Your task to perform on an android device: Open display settings Image 0: 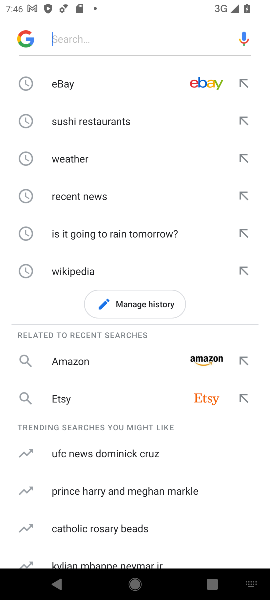
Step 0: press home button
Your task to perform on an android device: Open display settings Image 1: 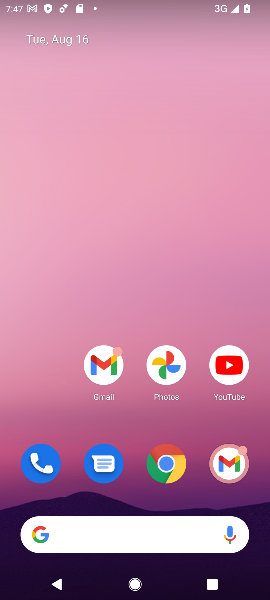
Step 1: drag from (105, 371) to (118, 44)
Your task to perform on an android device: Open display settings Image 2: 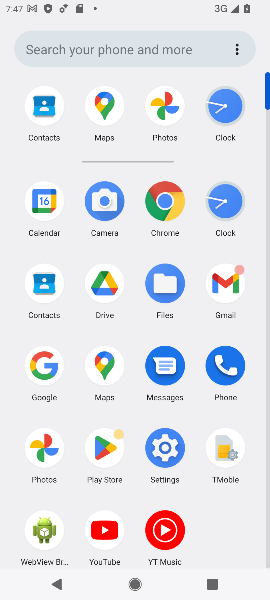
Step 2: click (161, 452)
Your task to perform on an android device: Open display settings Image 3: 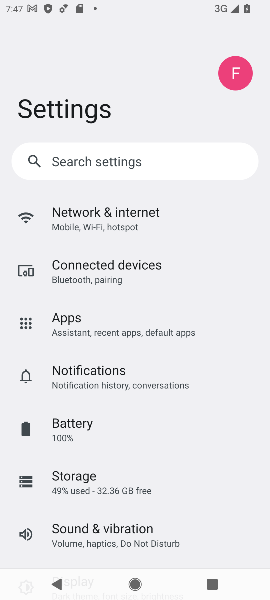
Step 3: drag from (91, 503) to (138, 246)
Your task to perform on an android device: Open display settings Image 4: 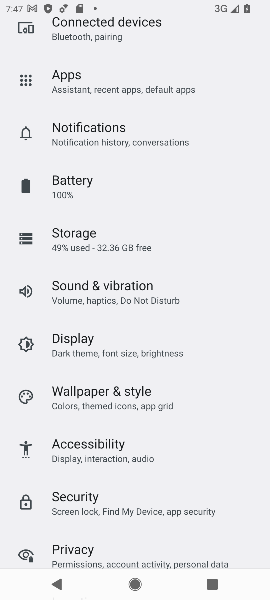
Step 4: click (81, 346)
Your task to perform on an android device: Open display settings Image 5: 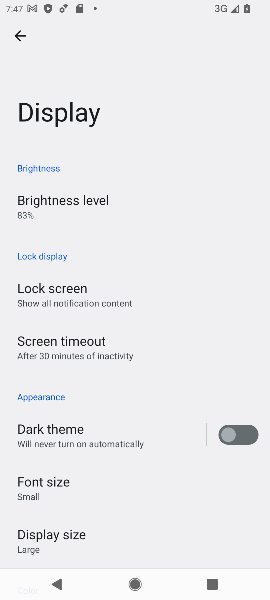
Step 5: task complete